Your task to perform on an android device: How big is the moon? Image 0: 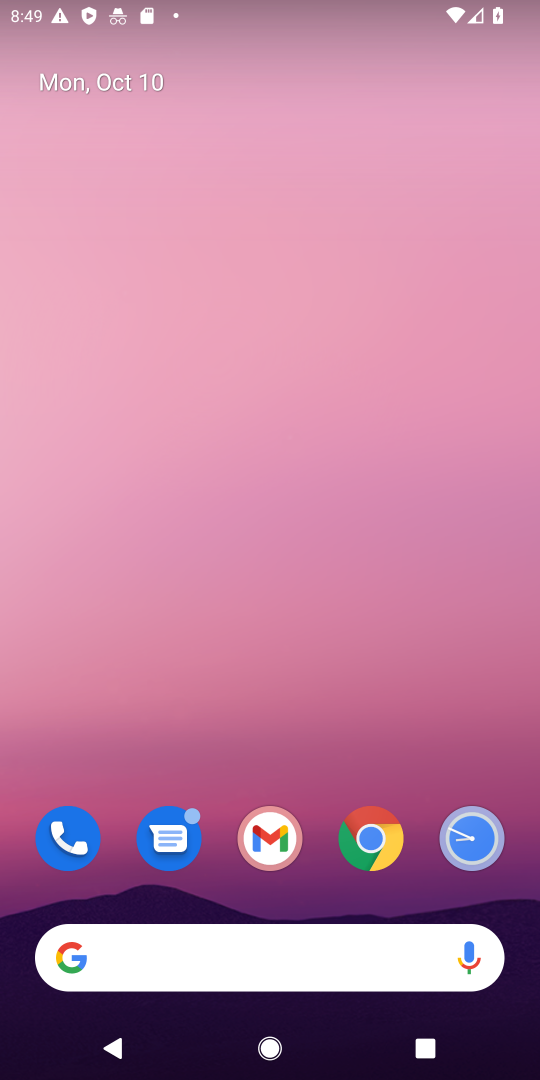
Step 0: drag from (233, 906) to (279, 113)
Your task to perform on an android device: How big is the moon? Image 1: 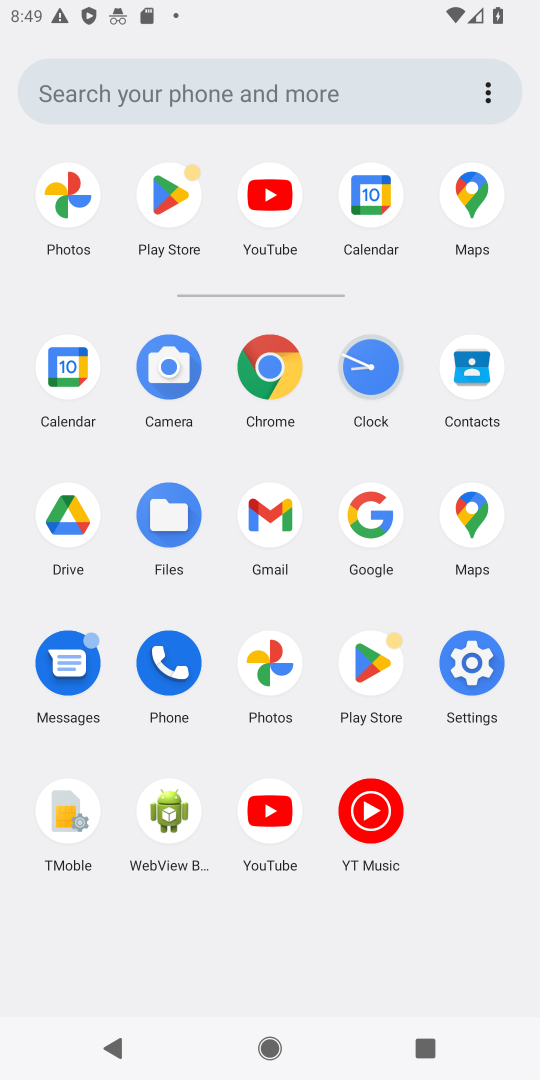
Step 1: click (272, 372)
Your task to perform on an android device: How big is the moon? Image 2: 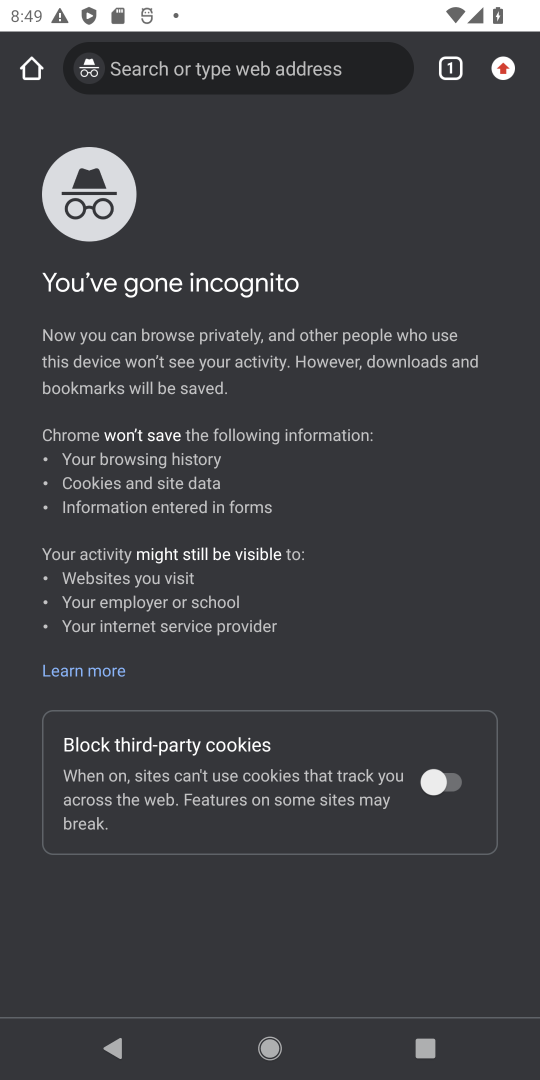
Step 2: drag from (493, 69) to (304, 214)
Your task to perform on an android device: How big is the moon? Image 3: 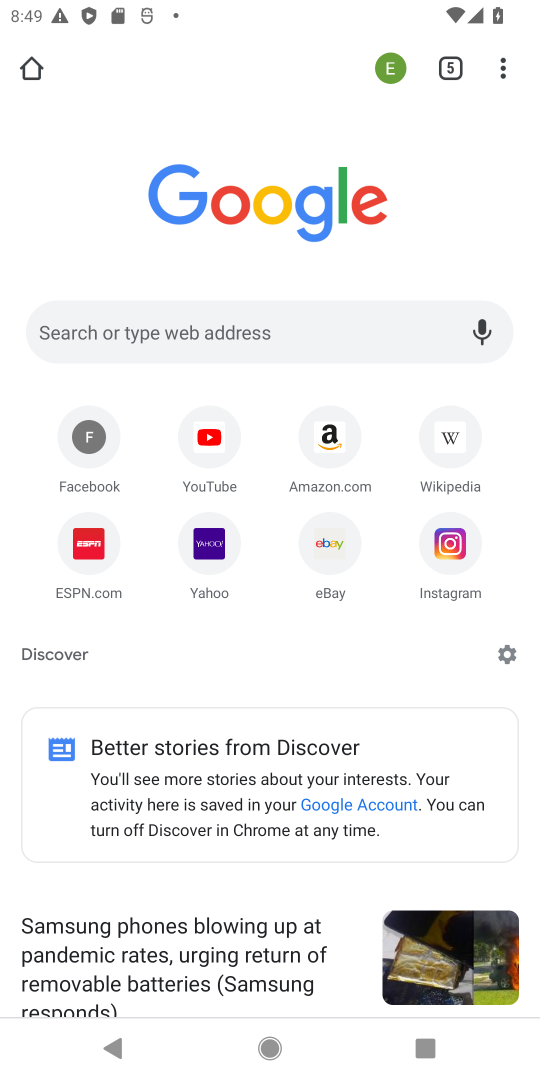
Step 3: click (248, 337)
Your task to perform on an android device: How big is the moon? Image 4: 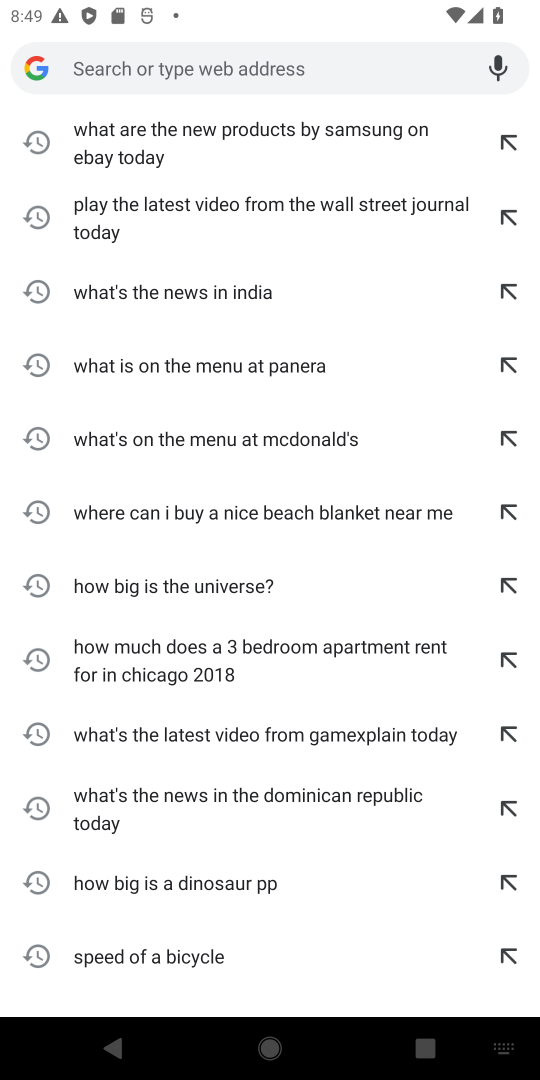
Step 4: type "How big is the moon?"
Your task to perform on an android device: How big is the moon? Image 5: 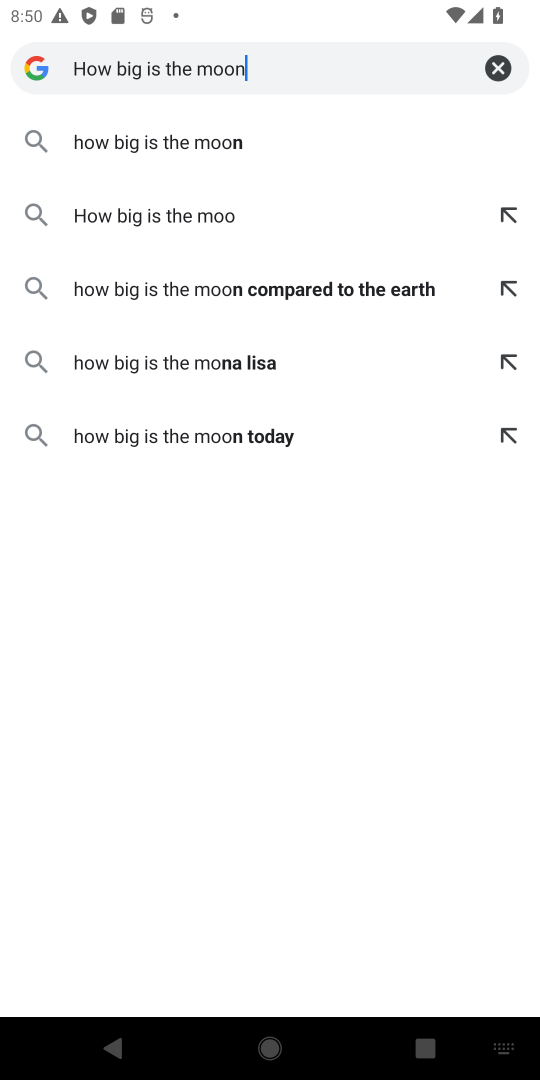
Step 5: type ""
Your task to perform on an android device: How big is the moon? Image 6: 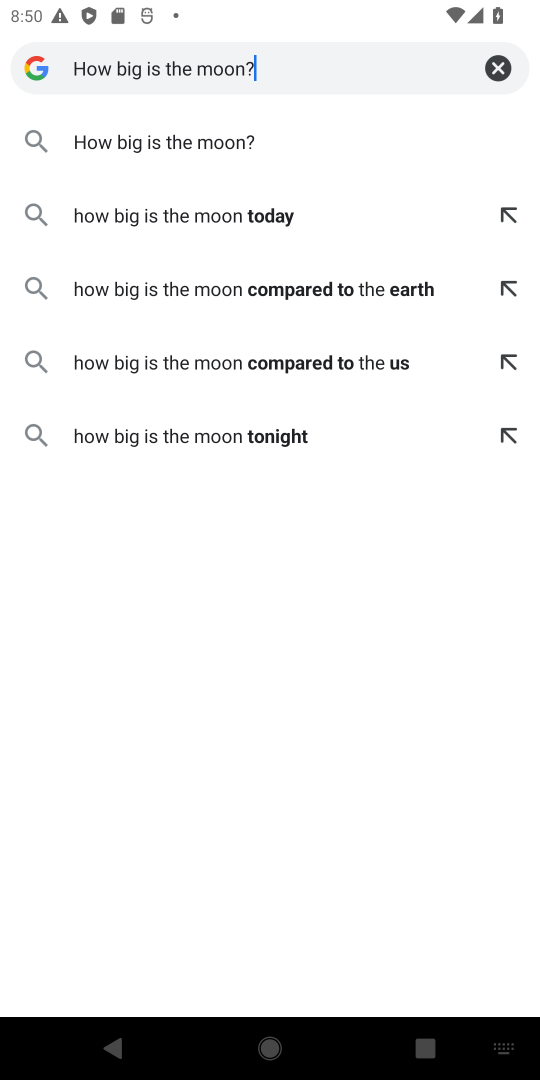
Step 6: click (195, 151)
Your task to perform on an android device: How big is the moon? Image 7: 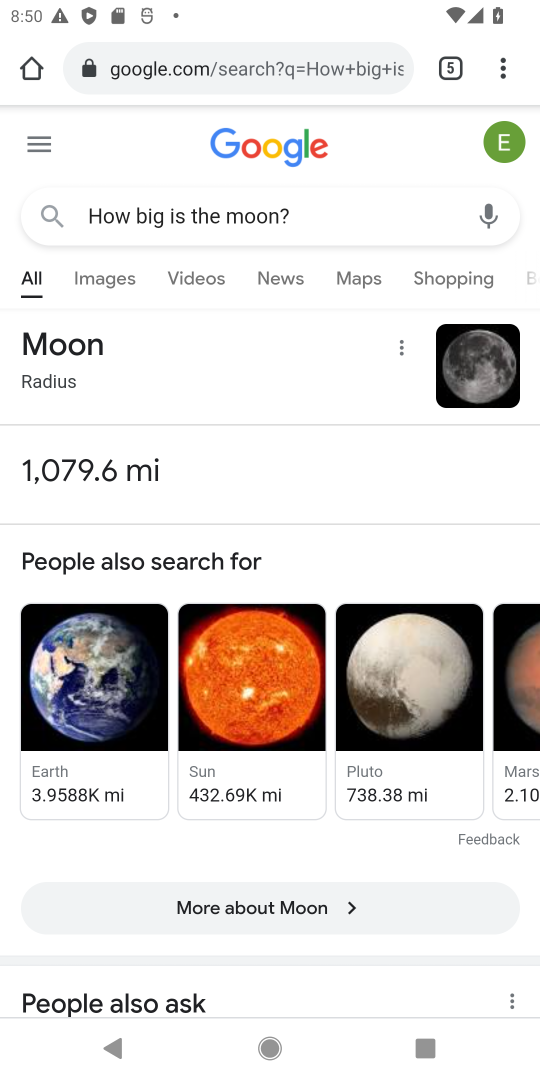
Step 7: task complete